Your task to perform on an android device: Open Reddit.com Image 0: 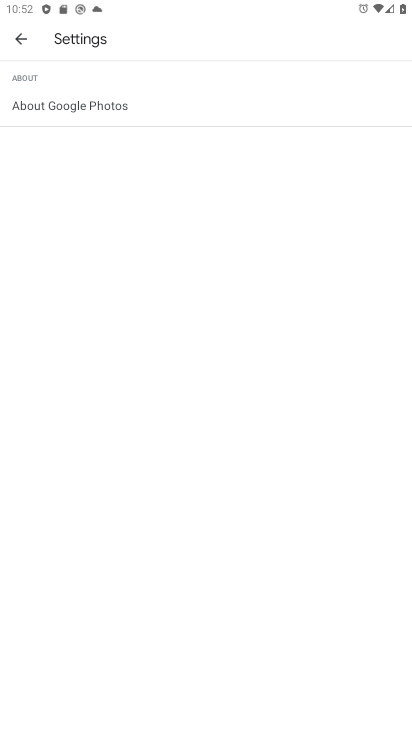
Step 0: press home button
Your task to perform on an android device: Open Reddit.com Image 1: 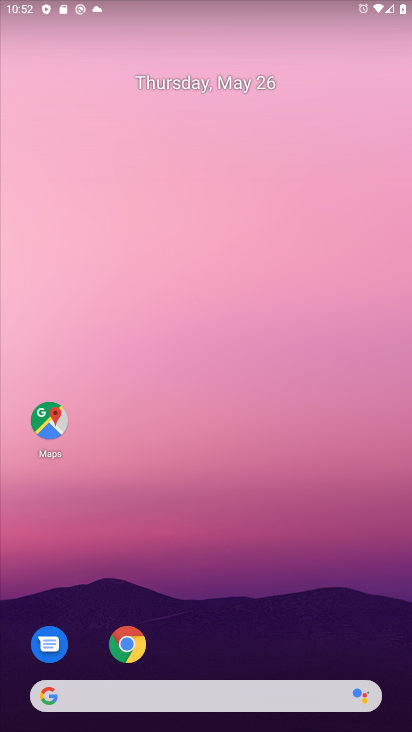
Step 1: click (139, 637)
Your task to perform on an android device: Open Reddit.com Image 2: 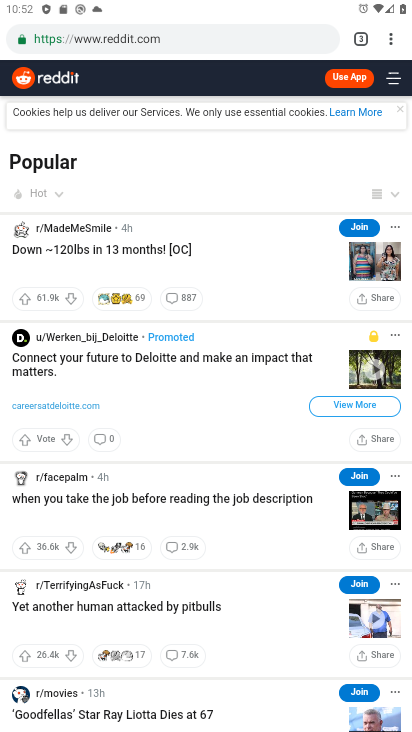
Step 2: task complete